Your task to perform on an android device: clear all cookies in the chrome app Image 0: 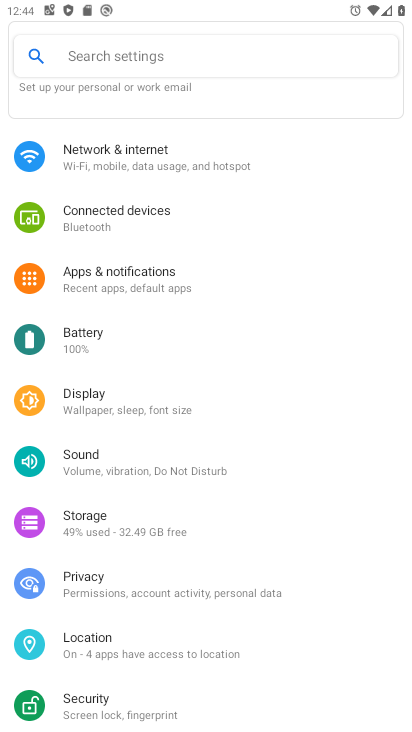
Step 0: press home button
Your task to perform on an android device: clear all cookies in the chrome app Image 1: 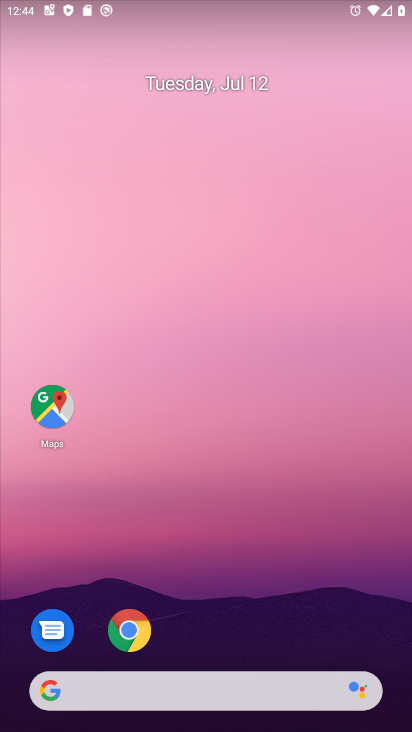
Step 1: click (126, 628)
Your task to perform on an android device: clear all cookies in the chrome app Image 2: 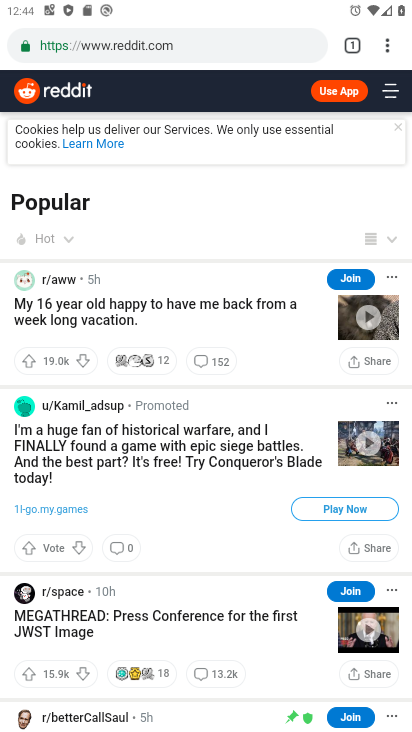
Step 2: click (389, 52)
Your task to perform on an android device: clear all cookies in the chrome app Image 3: 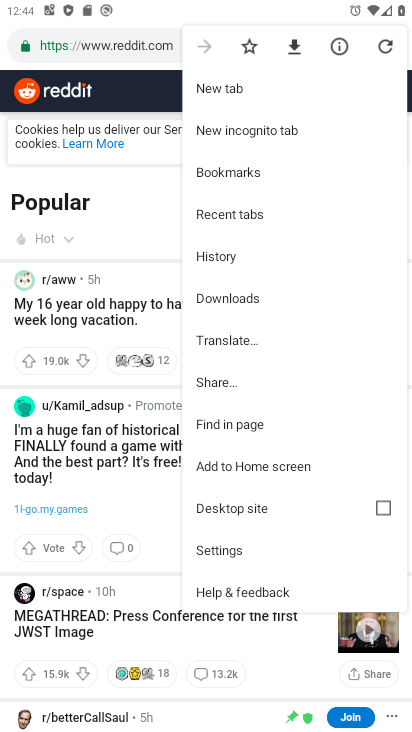
Step 3: click (211, 548)
Your task to perform on an android device: clear all cookies in the chrome app Image 4: 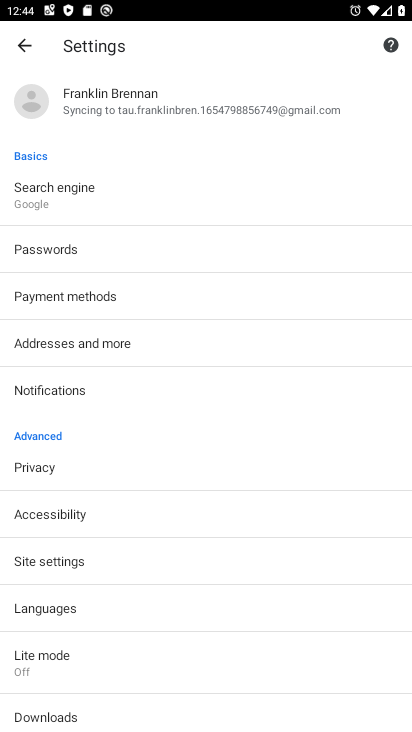
Step 4: click (47, 466)
Your task to perform on an android device: clear all cookies in the chrome app Image 5: 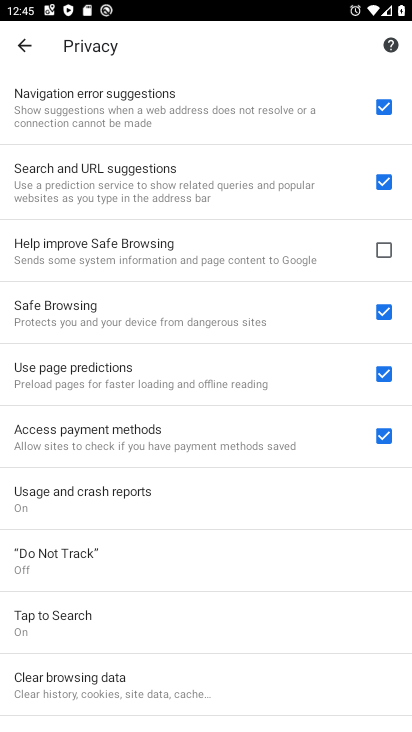
Step 5: click (92, 673)
Your task to perform on an android device: clear all cookies in the chrome app Image 6: 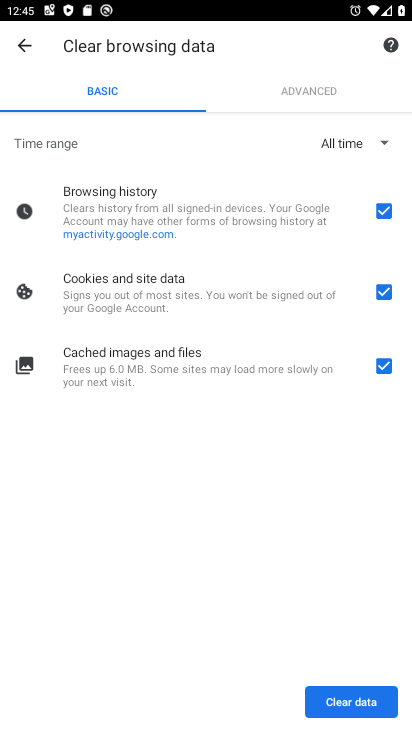
Step 6: click (393, 215)
Your task to perform on an android device: clear all cookies in the chrome app Image 7: 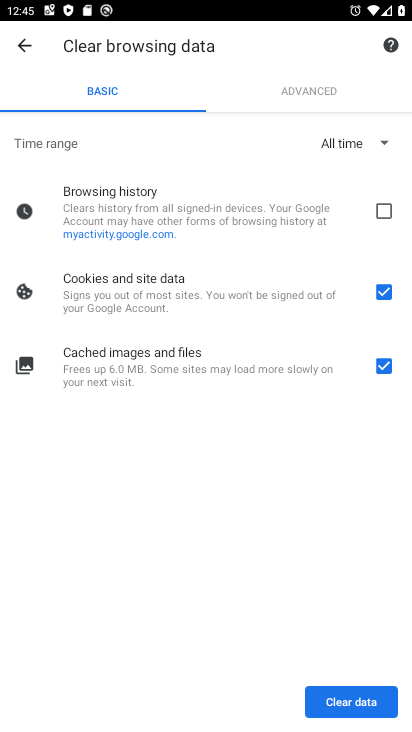
Step 7: click (379, 369)
Your task to perform on an android device: clear all cookies in the chrome app Image 8: 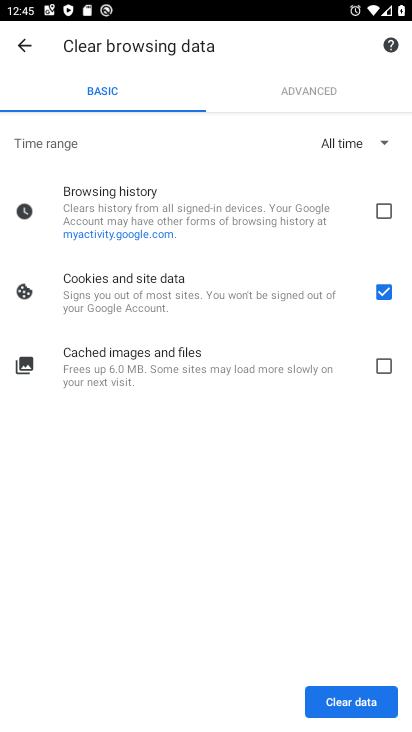
Step 8: click (342, 704)
Your task to perform on an android device: clear all cookies in the chrome app Image 9: 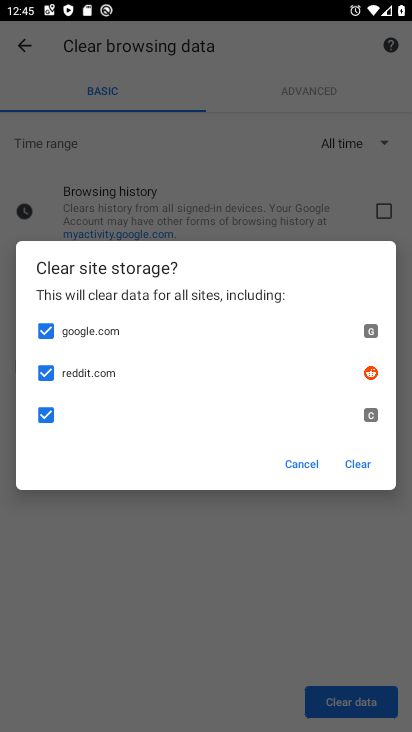
Step 9: click (372, 466)
Your task to perform on an android device: clear all cookies in the chrome app Image 10: 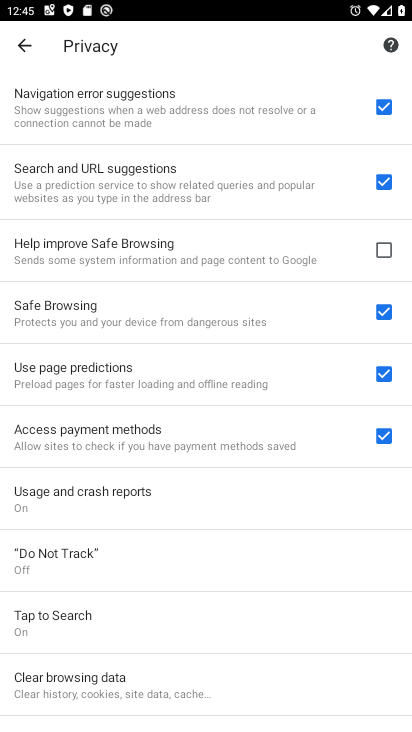
Step 10: task complete